Your task to perform on an android device: What is the news today? Image 0: 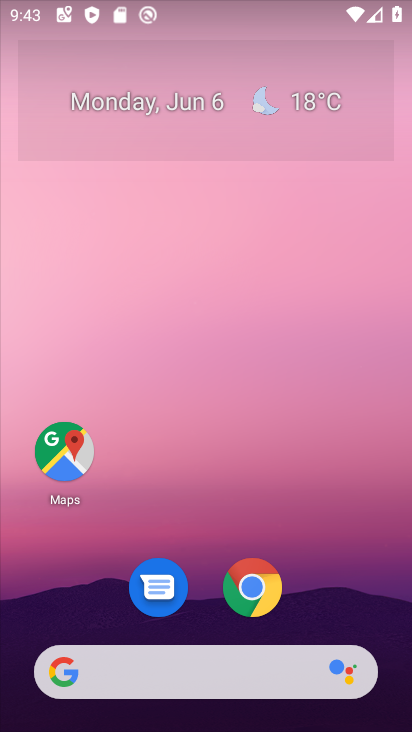
Step 0: drag from (342, 503) to (316, 222)
Your task to perform on an android device: What is the news today? Image 1: 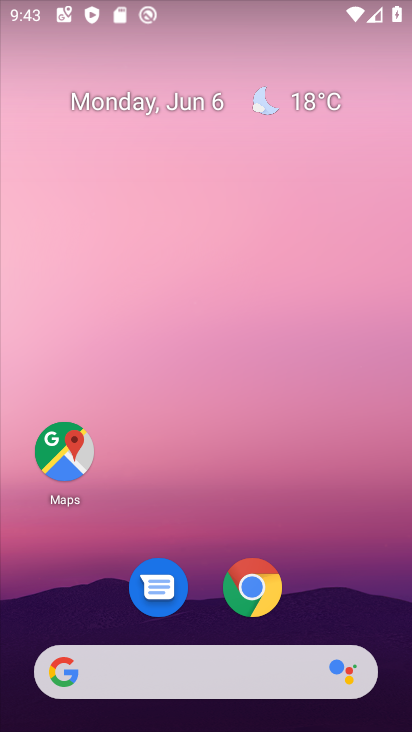
Step 1: drag from (357, 641) to (291, 68)
Your task to perform on an android device: What is the news today? Image 2: 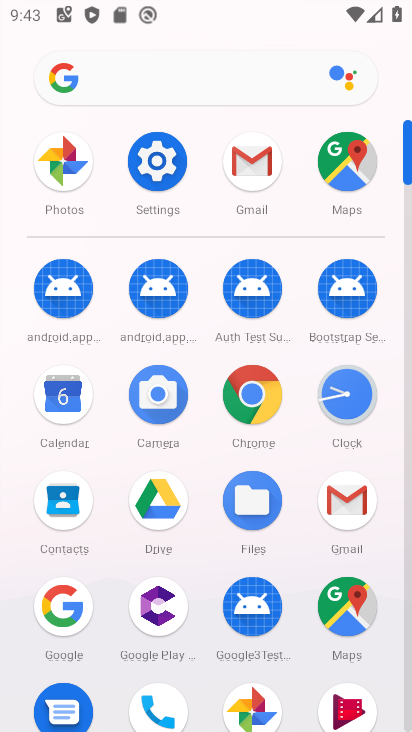
Step 2: click (256, 398)
Your task to perform on an android device: What is the news today? Image 3: 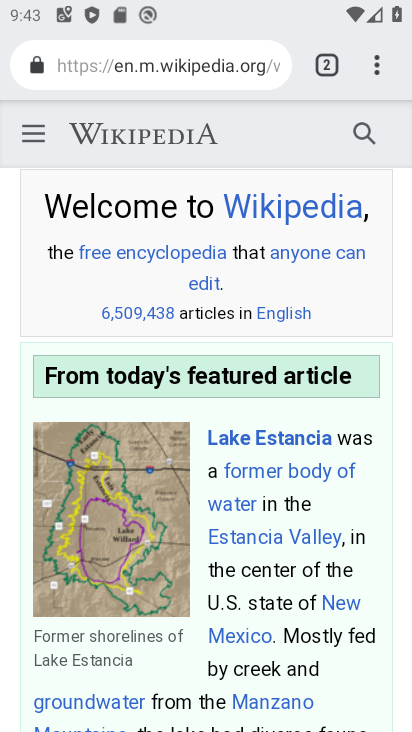
Step 3: click (183, 59)
Your task to perform on an android device: What is the news today? Image 4: 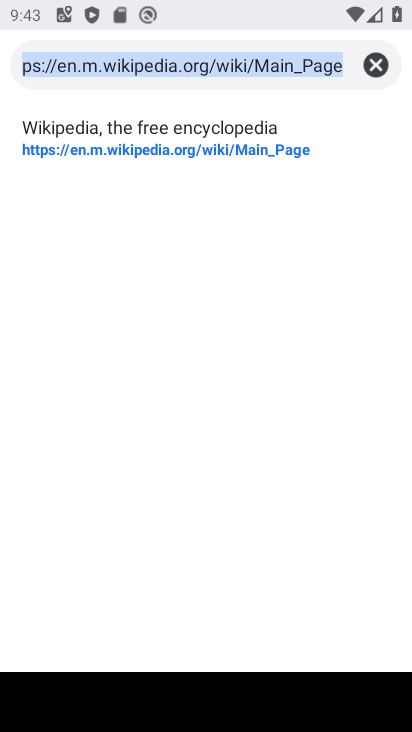
Step 4: type "news"
Your task to perform on an android device: What is the news today? Image 5: 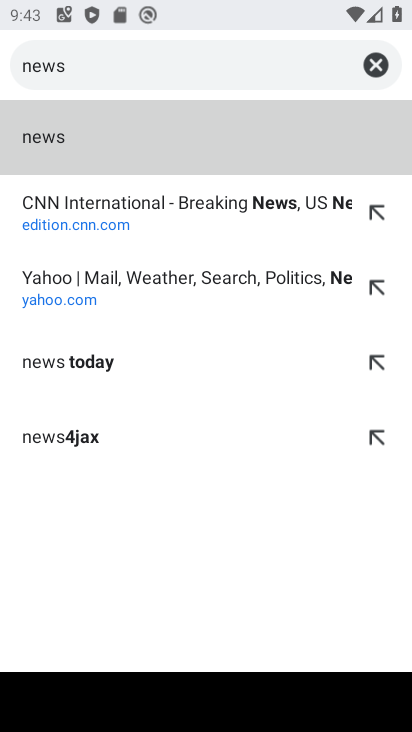
Step 5: click (59, 139)
Your task to perform on an android device: What is the news today? Image 6: 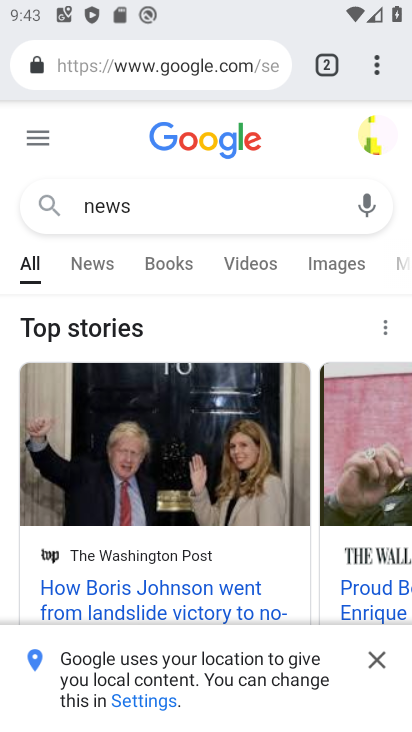
Step 6: click (112, 266)
Your task to perform on an android device: What is the news today? Image 7: 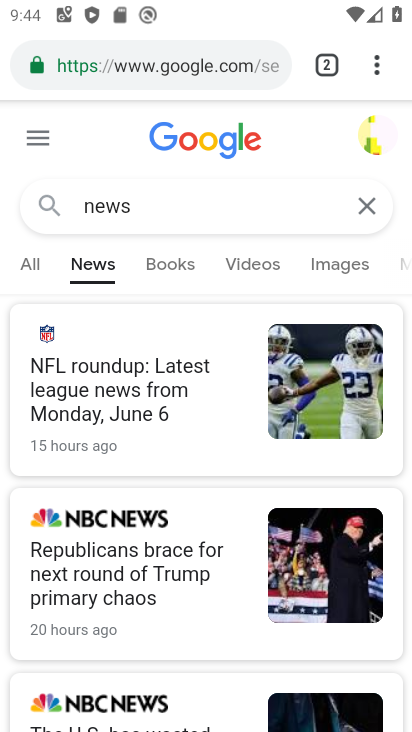
Step 7: task complete